Your task to perform on an android device: Go to Maps Image 0: 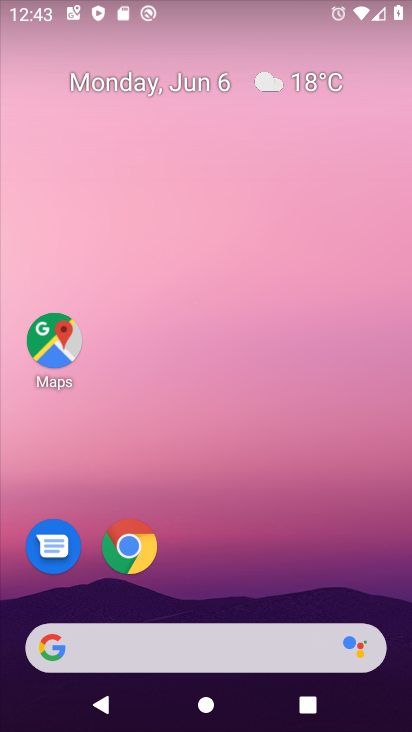
Step 0: click (59, 344)
Your task to perform on an android device: Go to Maps Image 1: 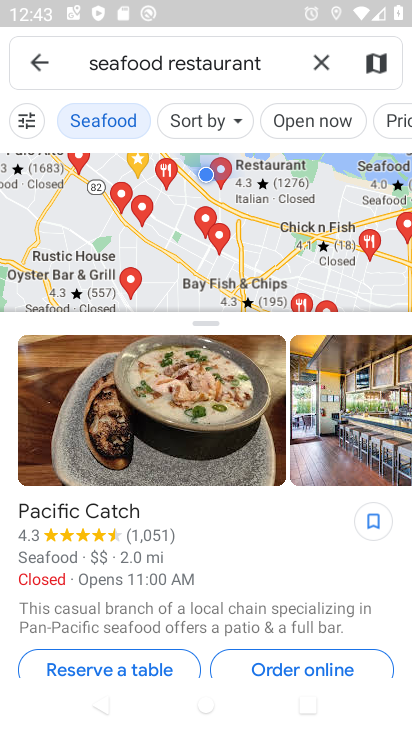
Step 1: click (323, 62)
Your task to perform on an android device: Go to Maps Image 2: 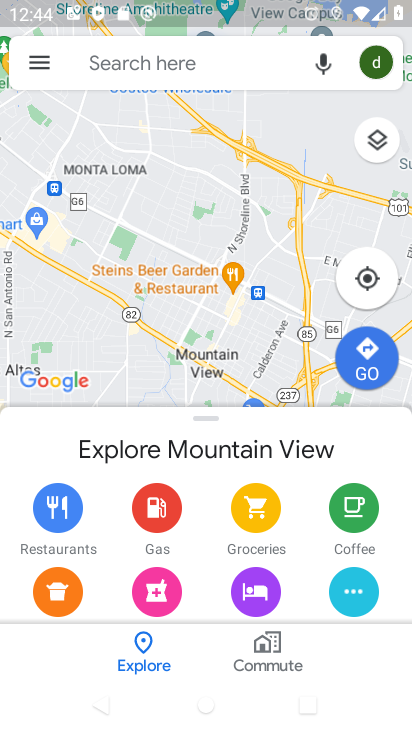
Step 2: task complete